Your task to perform on an android device: turn on data saver in the chrome app Image 0: 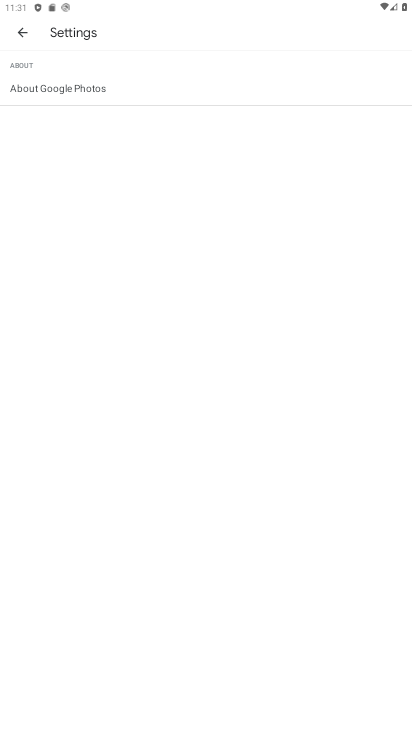
Step 0: press home button
Your task to perform on an android device: turn on data saver in the chrome app Image 1: 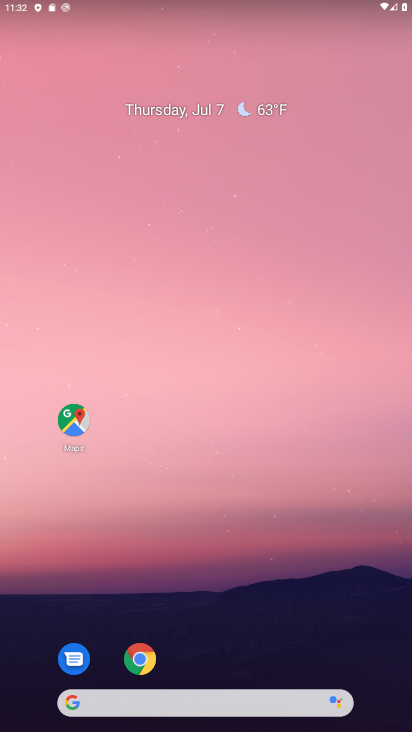
Step 1: drag from (255, 639) to (303, 0)
Your task to perform on an android device: turn on data saver in the chrome app Image 2: 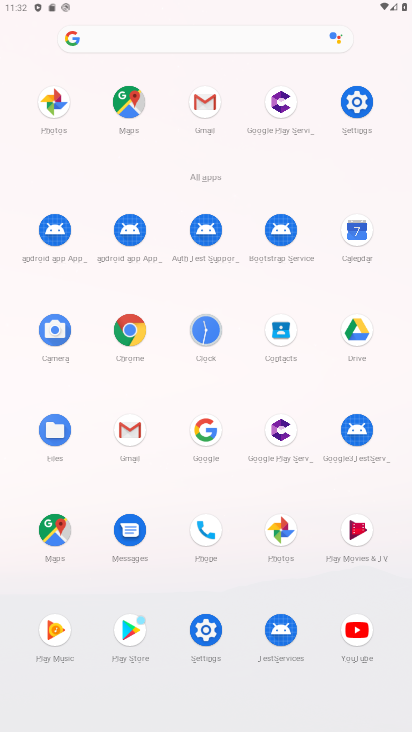
Step 2: click (137, 319)
Your task to perform on an android device: turn on data saver in the chrome app Image 3: 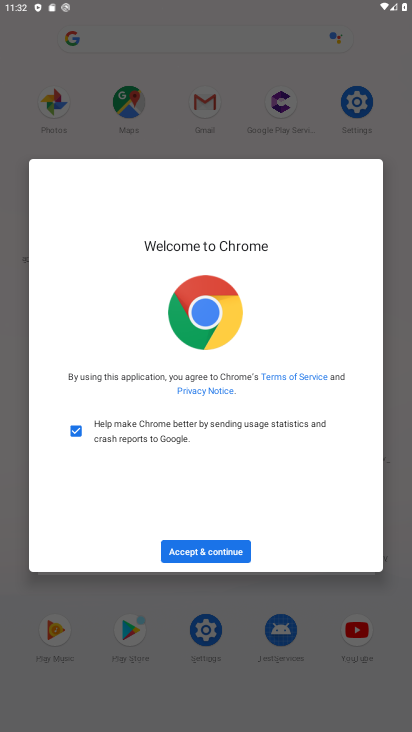
Step 3: click (226, 546)
Your task to perform on an android device: turn on data saver in the chrome app Image 4: 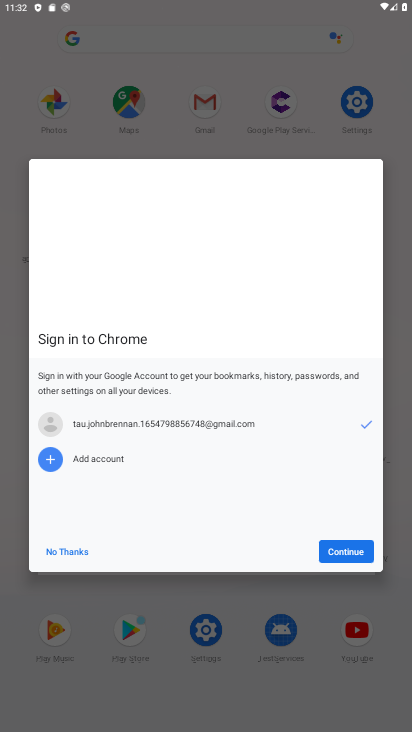
Step 4: click (356, 550)
Your task to perform on an android device: turn on data saver in the chrome app Image 5: 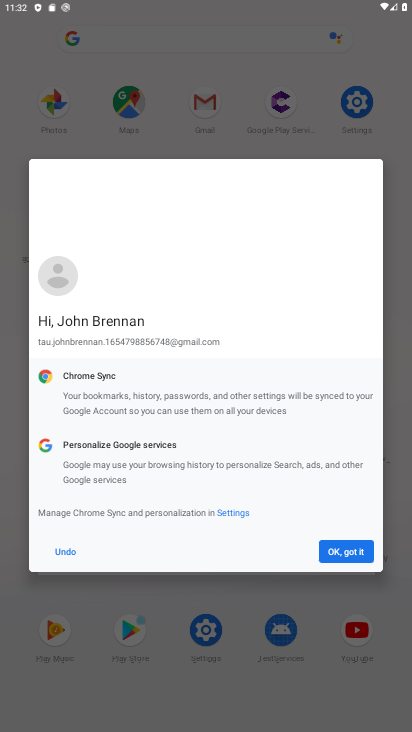
Step 5: click (335, 554)
Your task to perform on an android device: turn on data saver in the chrome app Image 6: 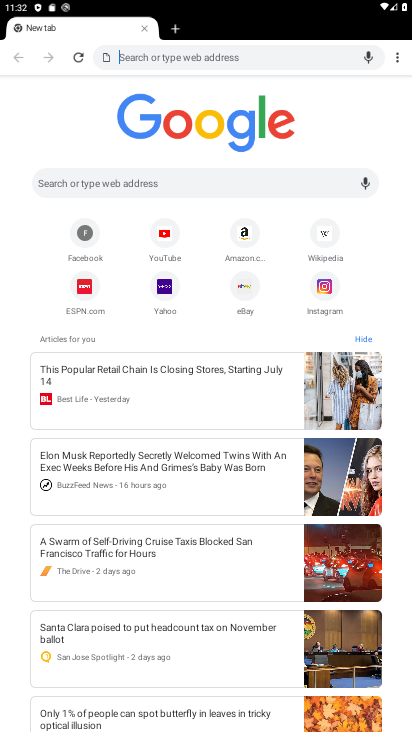
Step 6: click (395, 61)
Your task to perform on an android device: turn on data saver in the chrome app Image 7: 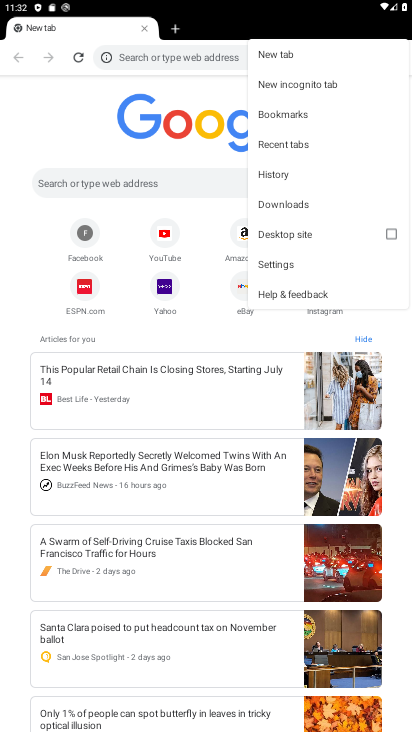
Step 7: click (280, 265)
Your task to perform on an android device: turn on data saver in the chrome app Image 8: 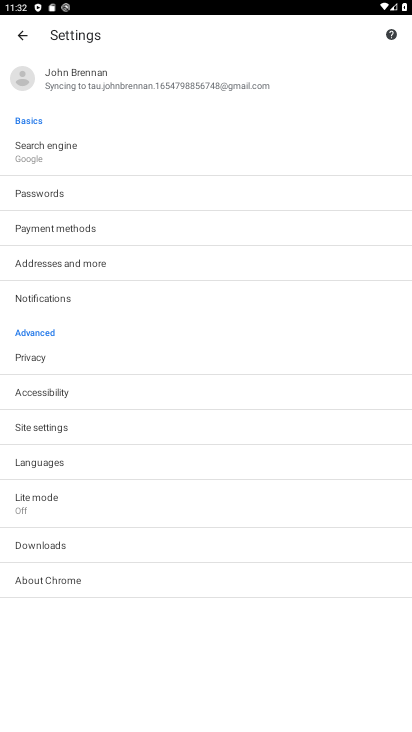
Step 8: click (54, 504)
Your task to perform on an android device: turn on data saver in the chrome app Image 9: 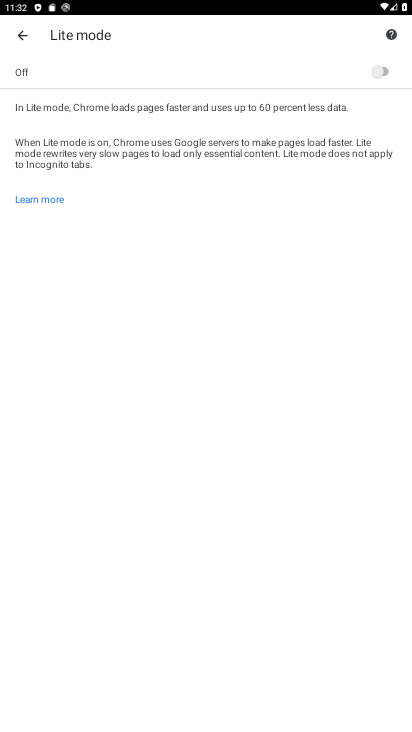
Step 9: click (360, 69)
Your task to perform on an android device: turn on data saver in the chrome app Image 10: 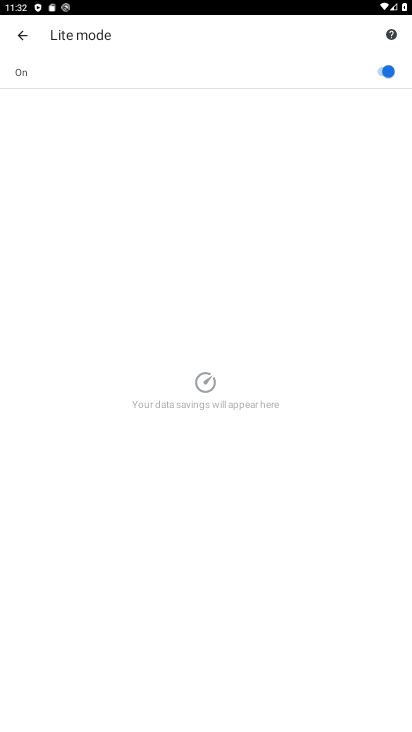
Step 10: task complete